Your task to perform on an android device: Is it going to rain this weekend? Image 0: 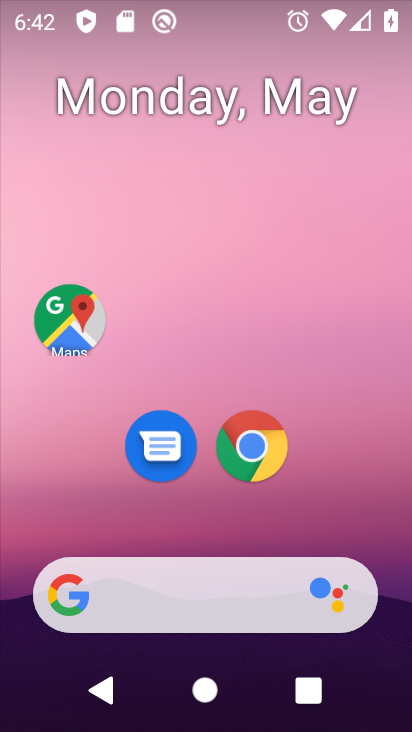
Step 0: click (215, 587)
Your task to perform on an android device: Is it going to rain this weekend? Image 1: 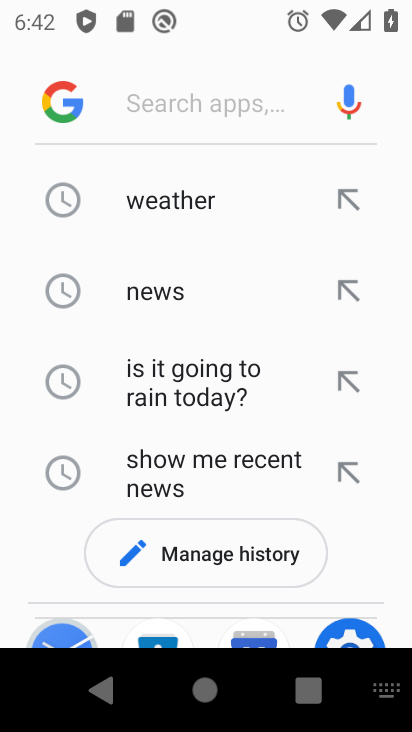
Step 1: click (192, 190)
Your task to perform on an android device: Is it going to rain this weekend? Image 2: 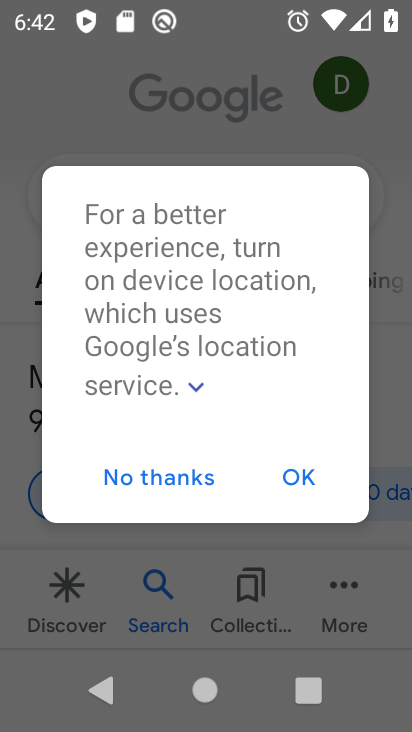
Step 2: click (299, 479)
Your task to perform on an android device: Is it going to rain this weekend? Image 3: 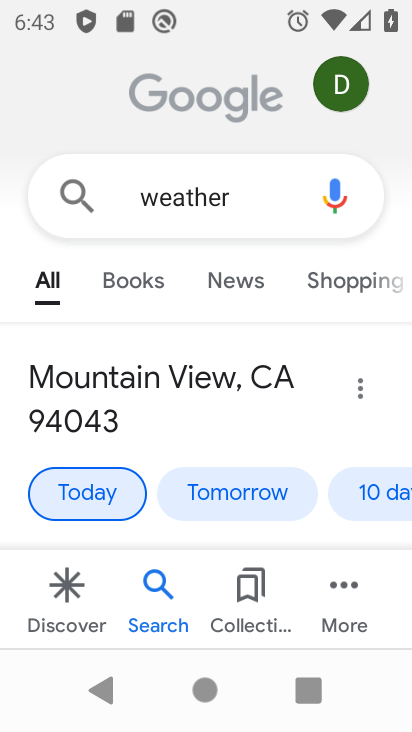
Step 3: drag from (166, 409) to (166, 131)
Your task to perform on an android device: Is it going to rain this weekend? Image 4: 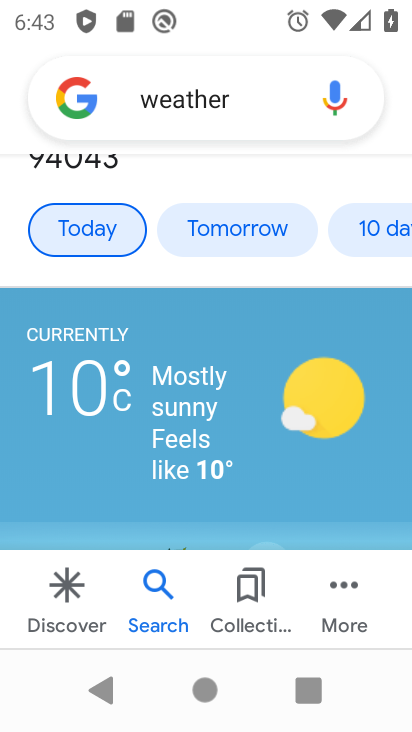
Step 4: click (371, 214)
Your task to perform on an android device: Is it going to rain this weekend? Image 5: 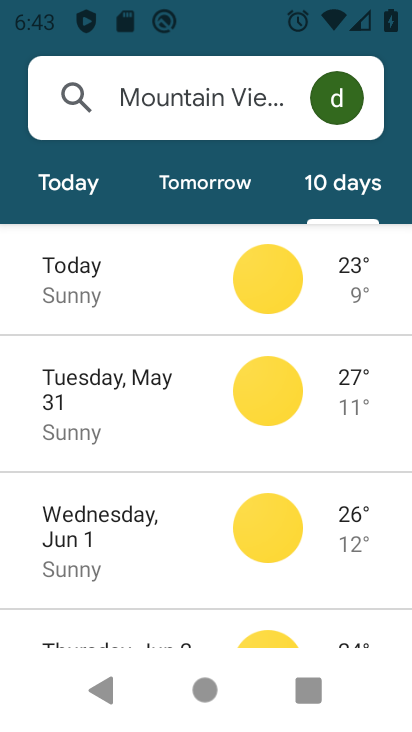
Step 5: task complete